Your task to perform on an android device: turn off notifications in google photos Image 0: 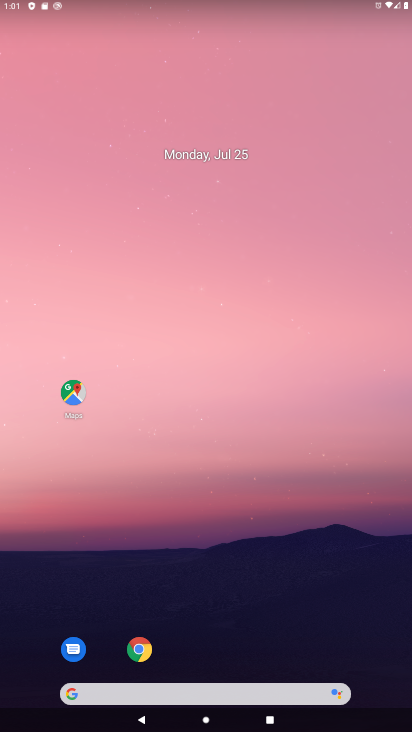
Step 0: press home button
Your task to perform on an android device: turn off notifications in google photos Image 1: 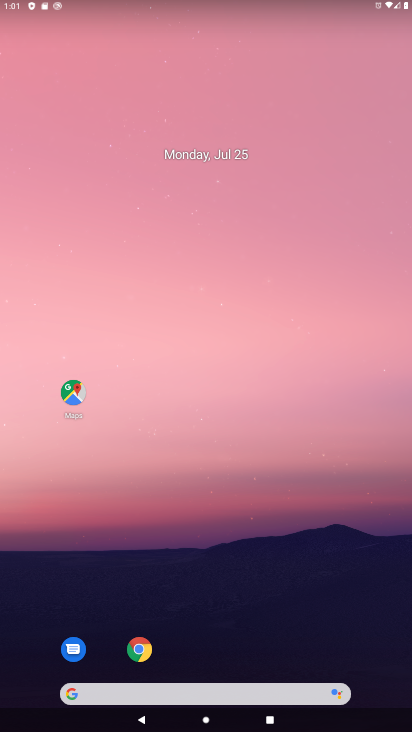
Step 1: drag from (258, 625) to (295, 8)
Your task to perform on an android device: turn off notifications in google photos Image 2: 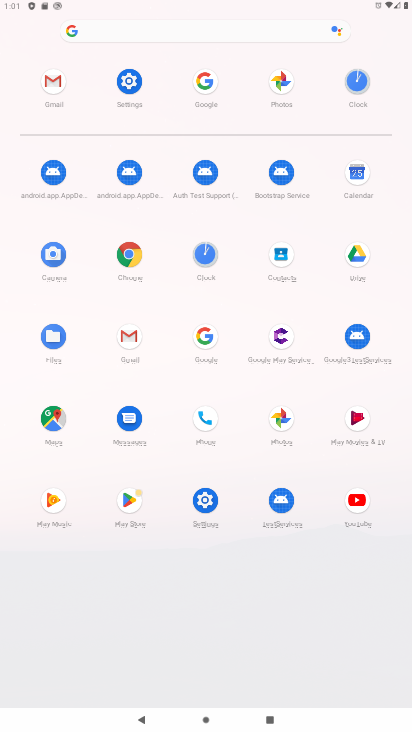
Step 2: click (282, 415)
Your task to perform on an android device: turn off notifications in google photos Image 3: 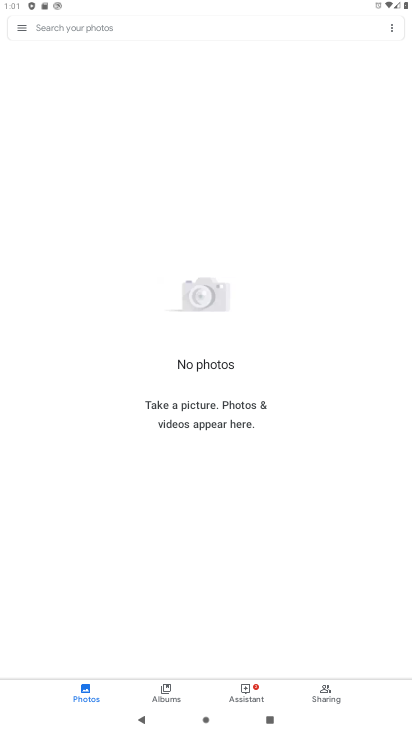
Step 3: click (17, 30)
Your task to perform on an android device: turn off notifications in google photos Image 4: 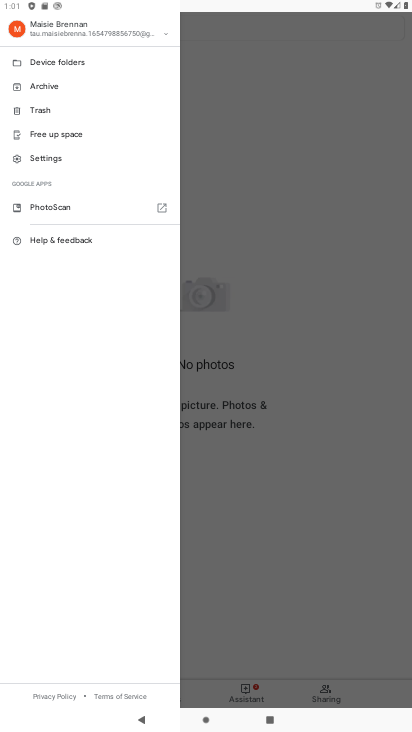
Step 4: click (51, 148)
Your task to perform on an android device: turn off notifications in google photos Image 5: 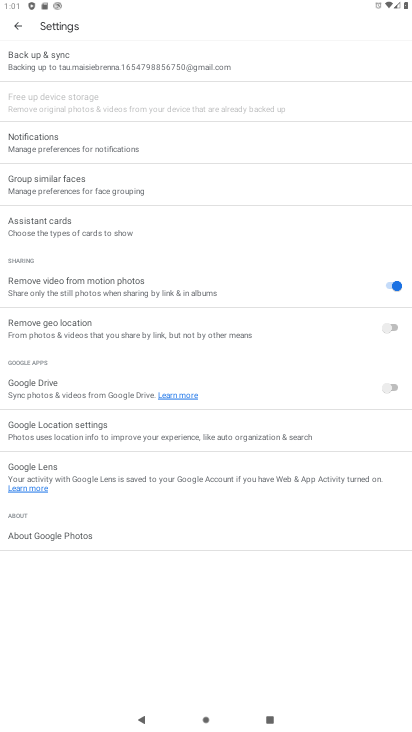
Step 5: click (95, 144)
Your task to perform on an android device: turn off notifications in google photos Image 6: 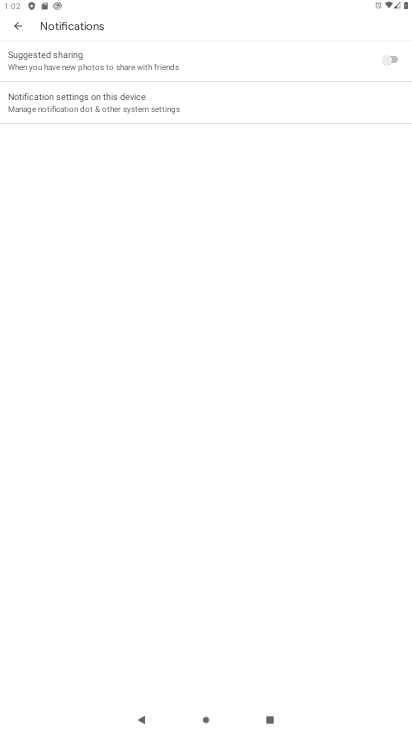
Step 6: click (95, 106)
Your task to perform on an android device: turn off notifications in google photos Image 7: 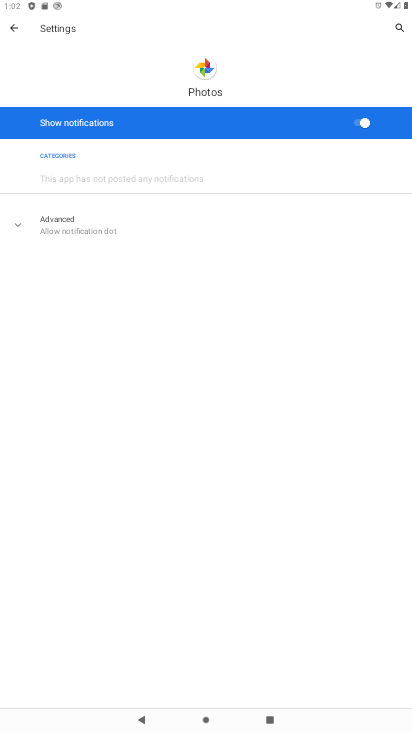
Step 7: click (367, 121)
Your task to perform on an android device: turn off notifications in google photos Image 8: 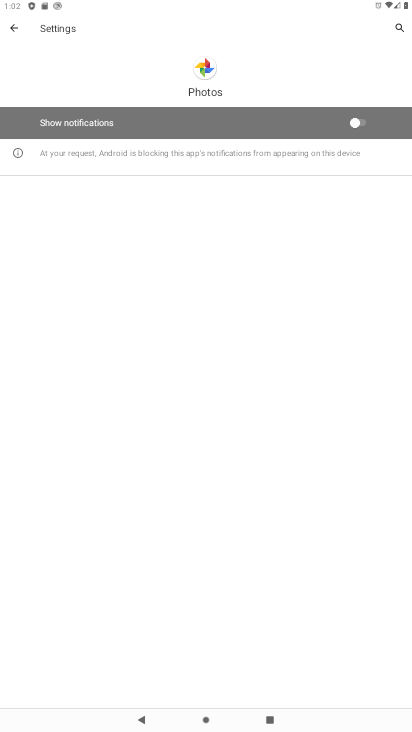
Step 8: task complete